Your task to perform on an android device: install app "Facebook" Image 0: 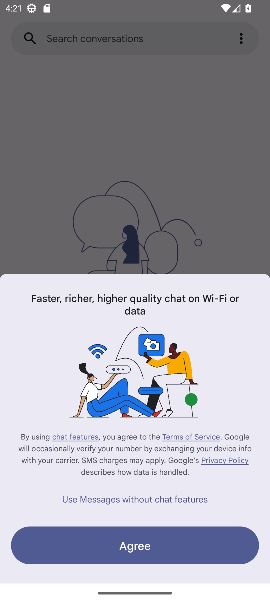
Step 0: press home button
Your task to perform on an android device: install app "Facebook" Image 1: 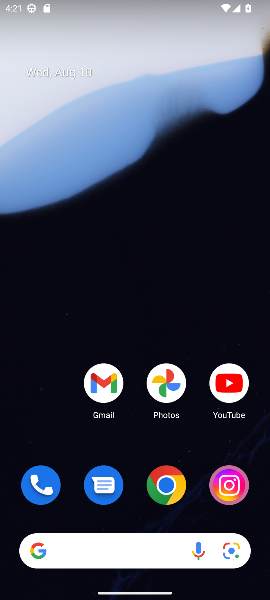
Step 1: drag from (125, 537) to (125, 319)
Your task to perform on an android device: install app "Facebook" Image 2: 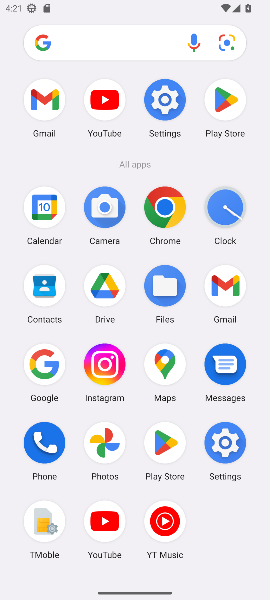
Step 2: click (225, 102)
Your task to perform on an android device: install app "Facebook" Image 3: 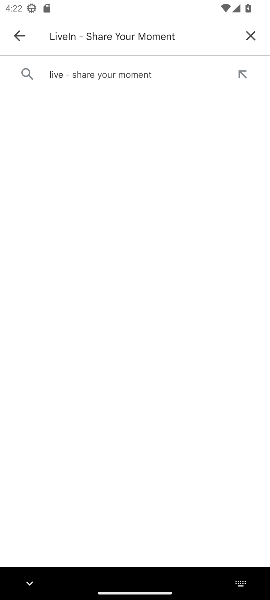
Step 3: click (248, 38)
Your task to perform on an android device: install app "Facebook" Image 4: 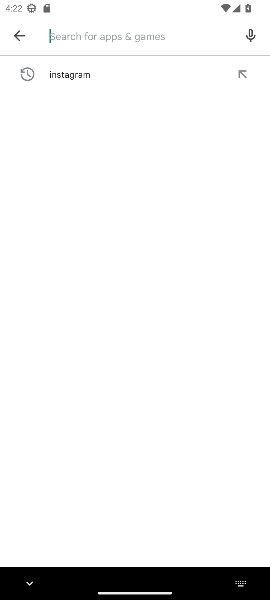
Step 4: type "Facebook"
Your task to perform on an android device: install app "Facebook" Image 5: 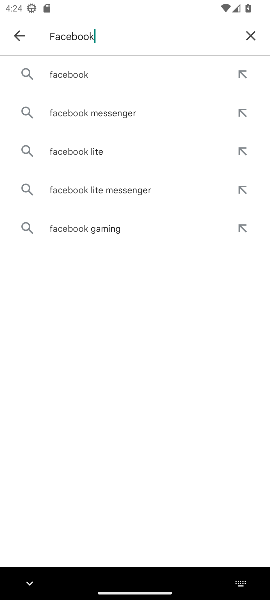
Step 5: click (55, 75)
Your task to perform on an android device: install app "Facebook" Image 6: 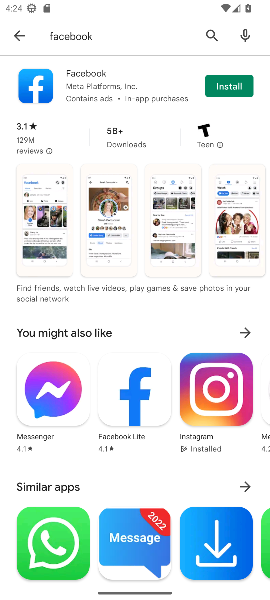
Step 6: click (225, 89)
Your task to perform on an android device: install app "Facebook" Image 7: 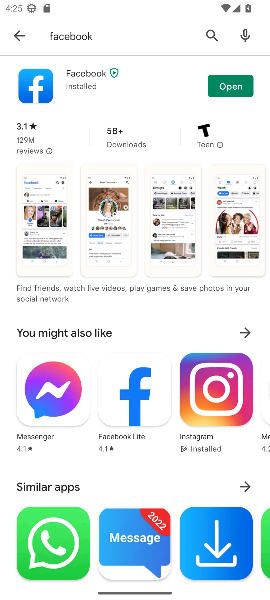
Step 7: click (231, 87)
Your task to perform on an android device: install app "Facebook" Image 8: 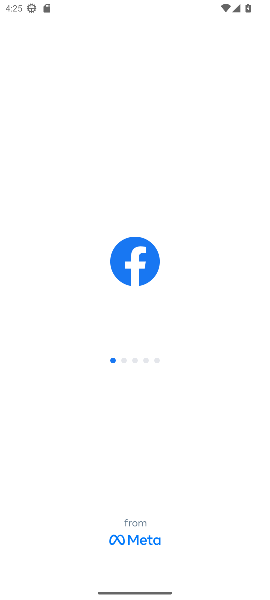
Step 8: task complete